Your task to perform on an android device: Open Google Image 0: 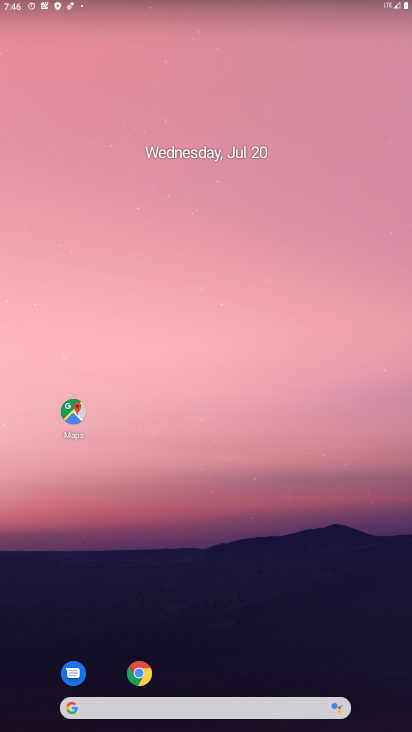
Step 0: drag from (361, 638) to (220, 67)
Your task to perform on an android device: Open Google Image 1: 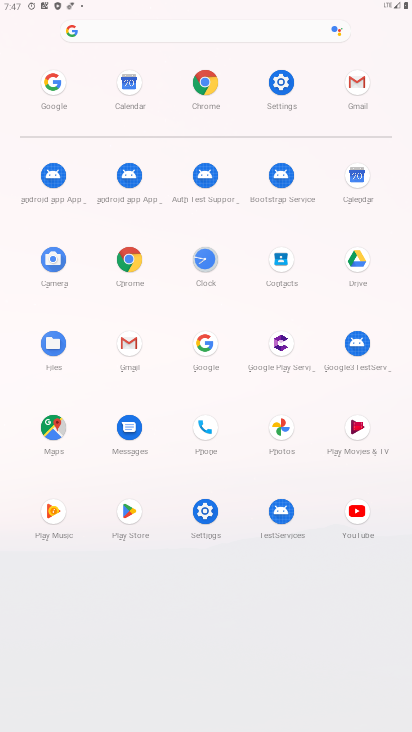
Step 1: click (193, 336)
Your task to perform on an android device: Open Google Image 2: 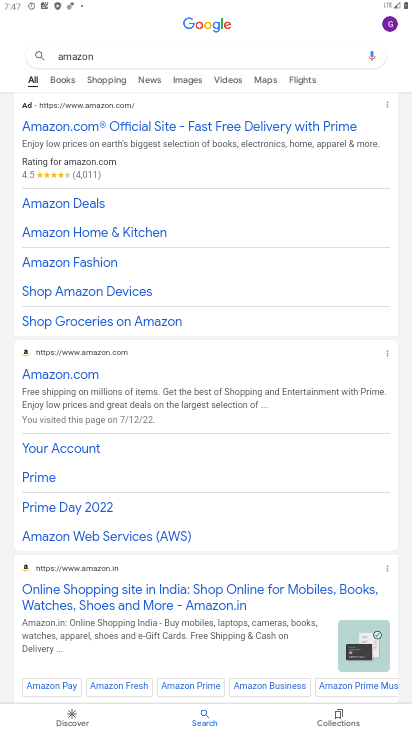
Step 2: click (185, 53)
Your task to perform on an android device: Open Google Image 3: 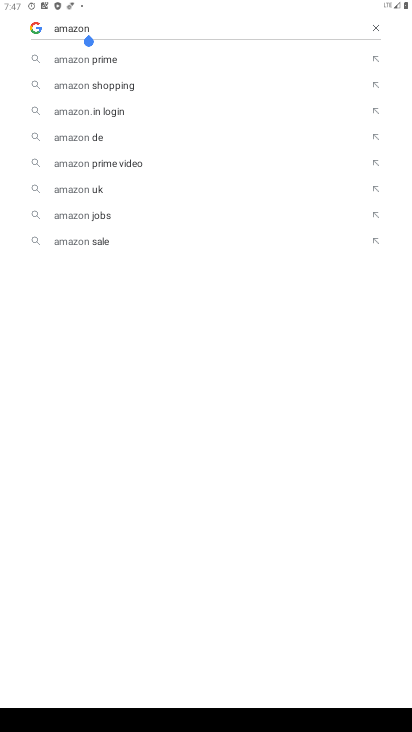
Step 3: click (375, 28)
Your task to perform on an android device: Open Google Image 4: 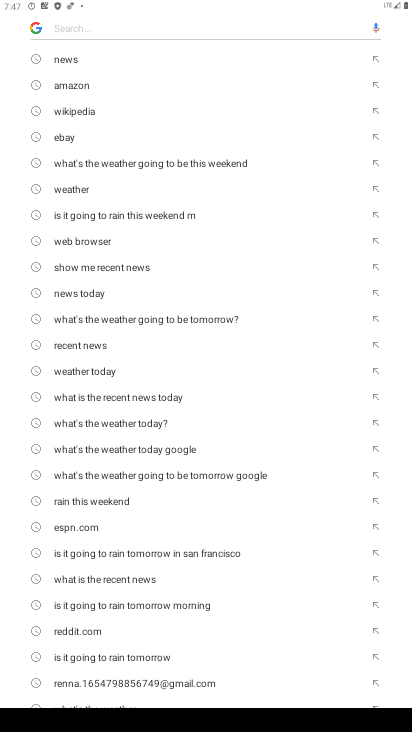
Step 4: task complete